Your task to perform on an android device: turn on priority inbox in the gmail app Image 0: 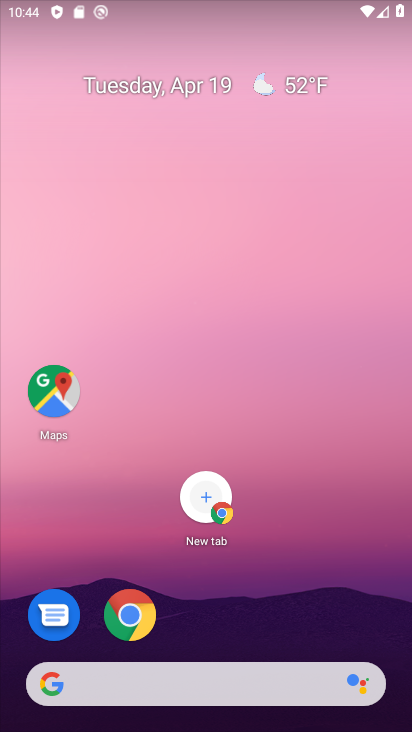
Step 0: drag from (224, 605) to (344, 35)
Your task to perform on an android device: turn on priority inbox in the gmail app Image 1: 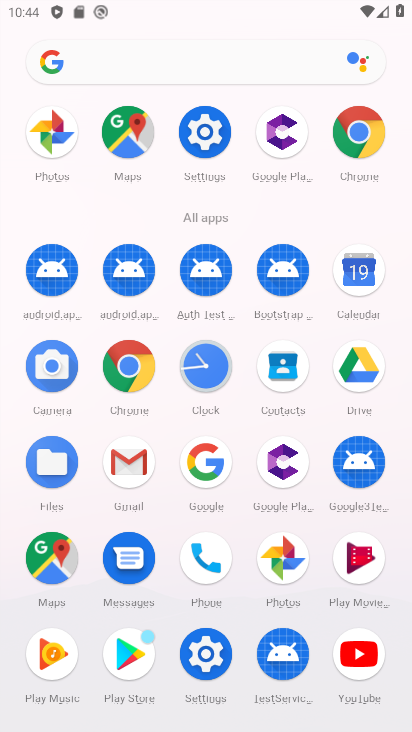
Step 1: click (131, 475)
Your task to perform on an android device: turn on priority inbox in the gmail app Image 2: 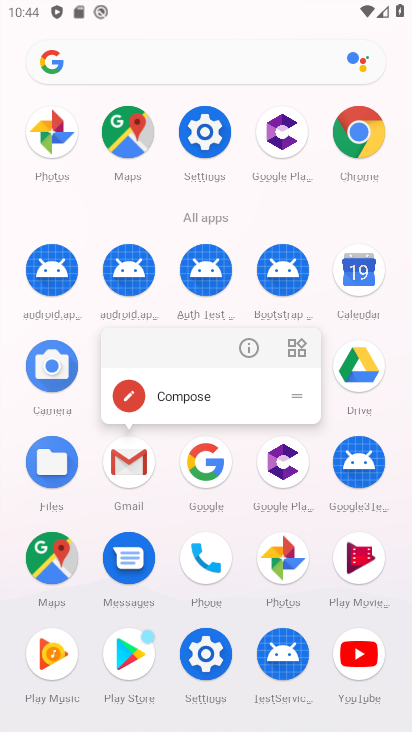
Step 2: click (125, 453)
Your task to perform on an android device: turn on priority inbox in the gmail app Image 3: 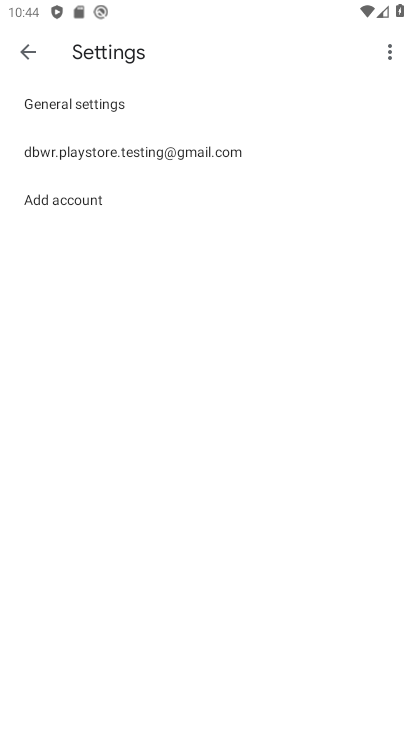
Step 3: click (200, 155)
Your task to perform on an android device: turn on priority inbox in the gmail app Image 4: 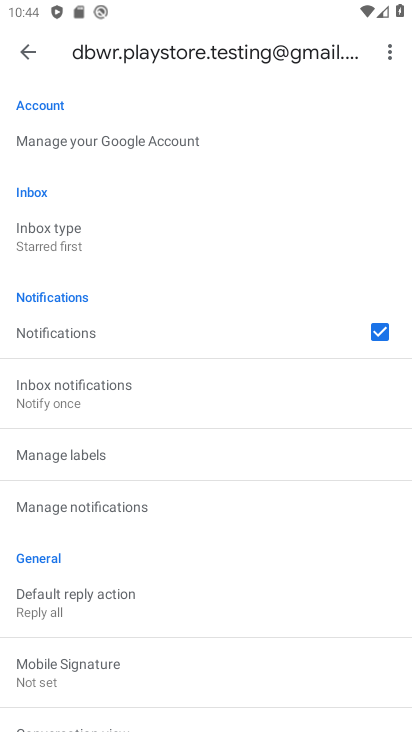
Step 4: click (171, 246)
Your task to perform on an android device: turn on priority inbox in the gmail app Image 5: 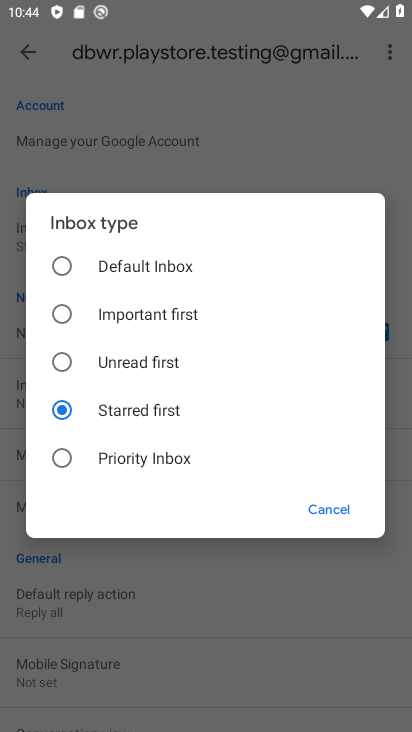
Step 5: click (93, 459)
Your task to perform on an android device: turn on priority inbox in the gmail app Image 6: 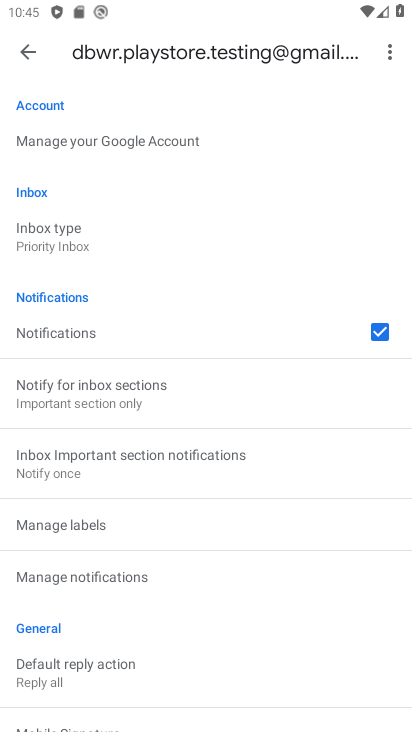
Step 6: task complete